Your task to perform on an android device: Turn on the flashlight Image 0: 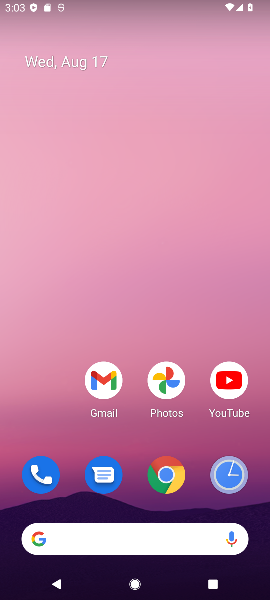
Step 0: drag from (141, 505) to (95, 125)
Your task to perform on an android device: Turn on the flashlight Image 1: 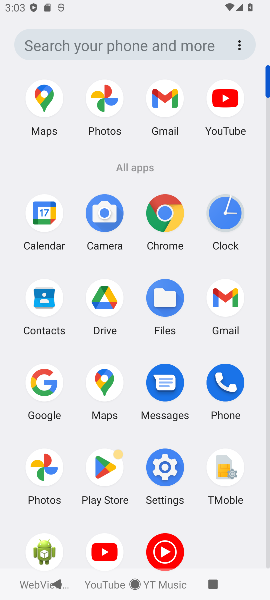
Step 1: drag from (129, 3) to (149, 418)
Your task to perform on an android device: Turn on the flashlight Image 2: 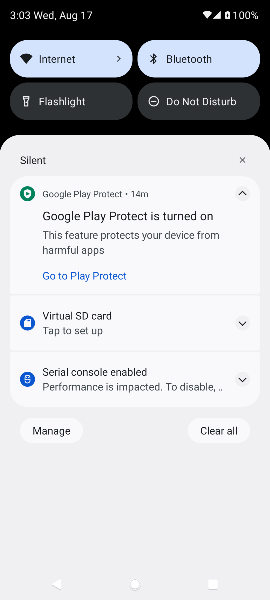
Step 2: click (238, 158)
Your task to perform on an android device: Turn on the flashlight Image 3: 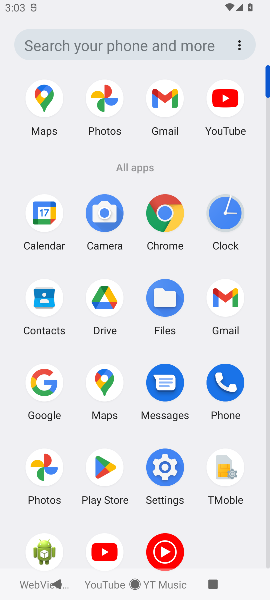
Step 3: drag from (141, 2) to (141, 508)
Your task to perform on an android device: Turn on the flashlight Image 4: 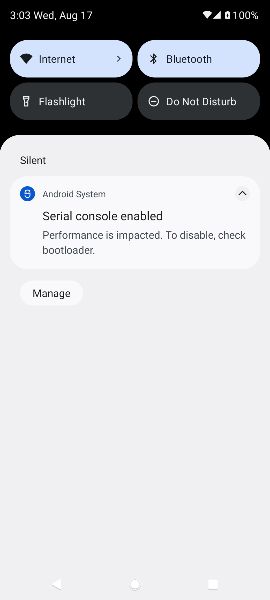
Step 4: click (41, 116)
Your task to perform on an android device: Turn on the flashlight Image 5: 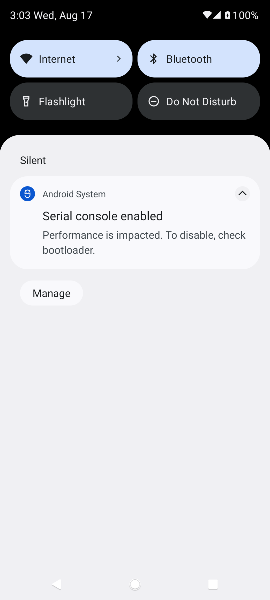
Step 5: task complete